Your task to perform on an android device: visit the assistant section in the google photos Image 0: 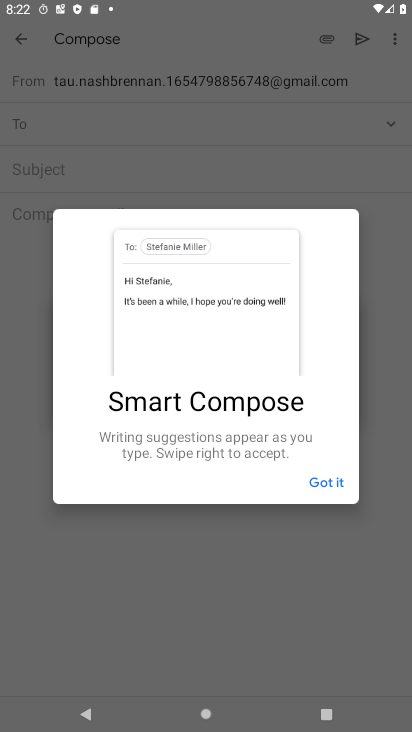
Step 0: press home button
Your task to perform on an android device: visit the assistant section in the google photos Image 1: 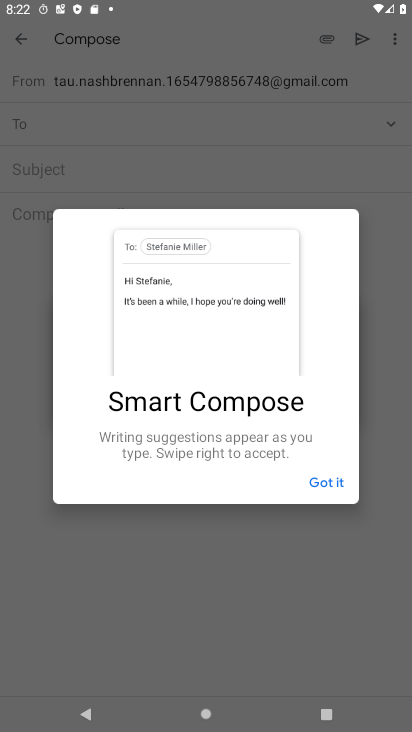
Step 1: press home button
Your task to perform on an android device: visit the assistant section in the google photos Image 2: 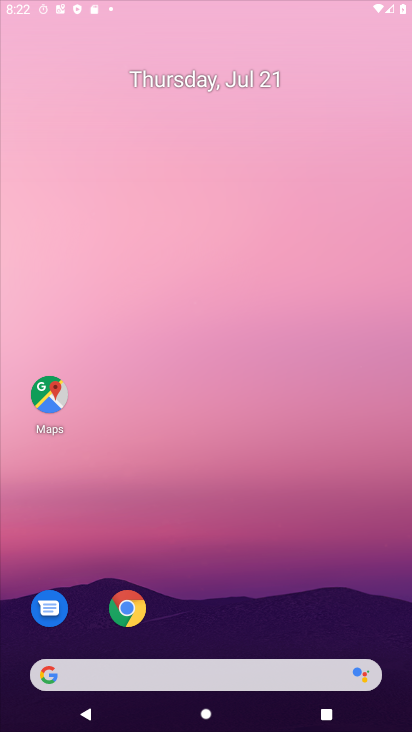
Step 2: press home button
Your task to perform on an android device: visit the assistant section in the google photos Image 3: 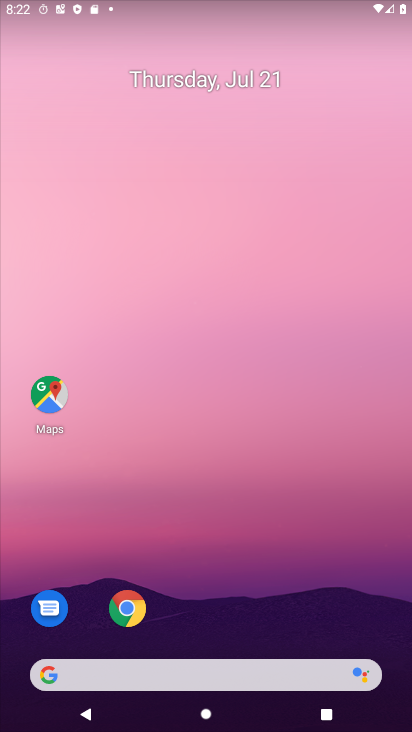
Step 3: drag from (367, 636) to (276, 33)
Your task to perform on an android device: visit the assistant section in the google photos Image 4: 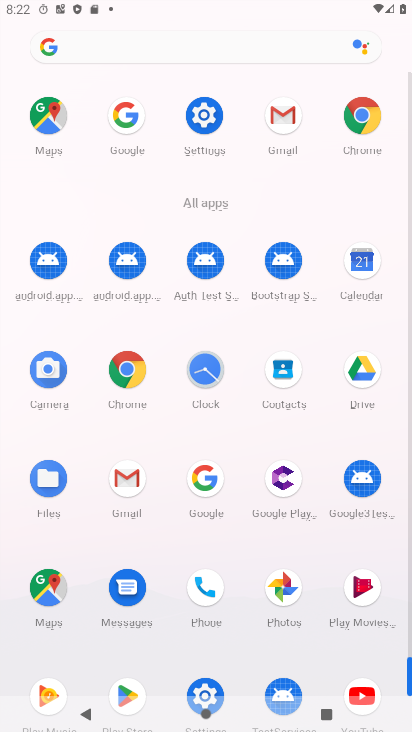
Step 4: click (293, 577)
Your task to perform on an android device: visit the assistant section in the google photos Image 5: 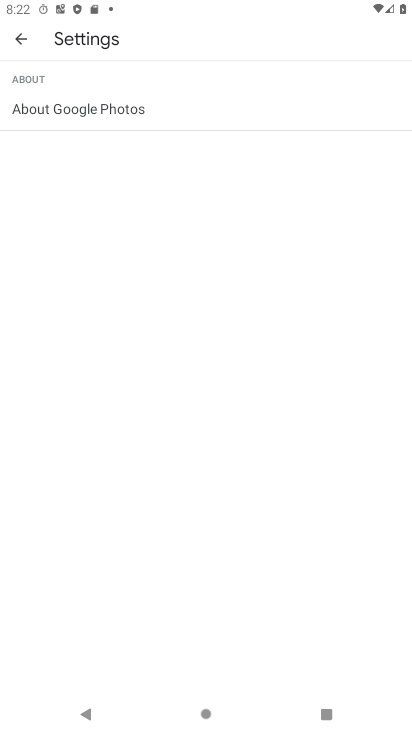
Step 5: click (23, 38)
Your task to perform on an android device: visit the assistant section in the google photos Image 6: 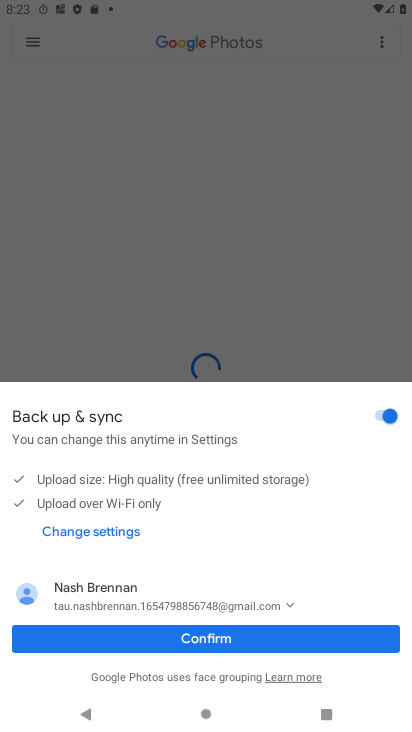
Step 6: click (169, 643)
Your task to perform on an android device: visit the assistant section in the google photos Image 7: 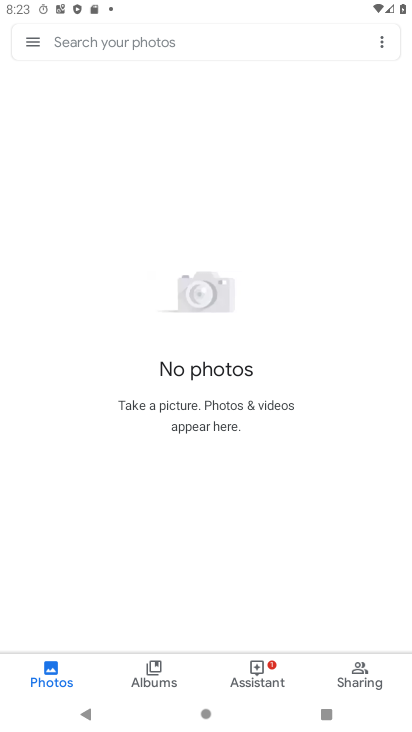
Step 7: click (274, 687)
Your task to perform on an android device: visit the assistant section in the google photos Image 8: 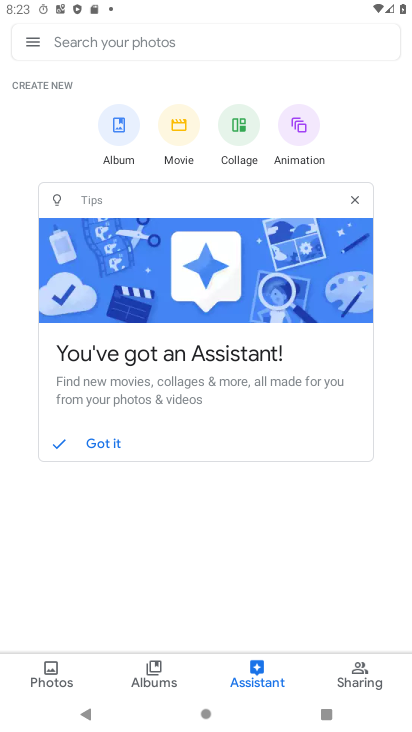
Step 8: task complete